Your task to perform on an android device: turn off data saver in the chrome app Image 0: 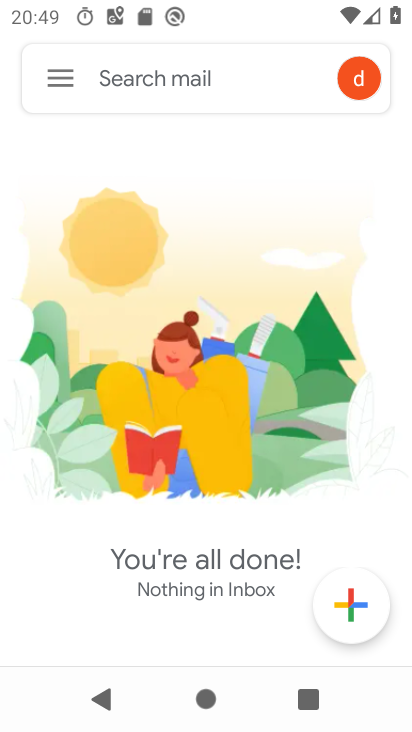
Step 0: press home button
Your task to perform on an android device: turn off data saver in the chrome app Image 1: 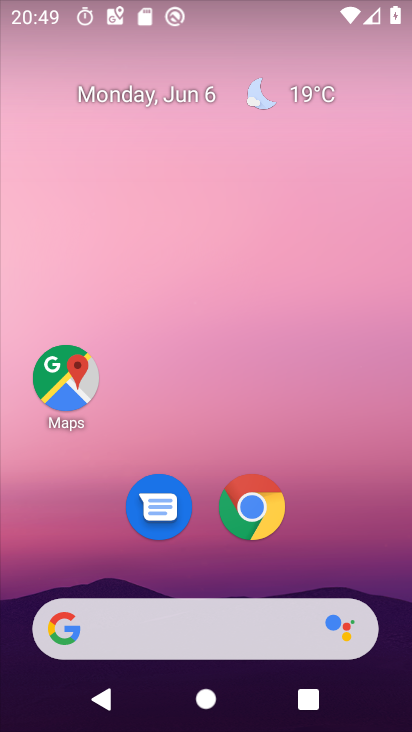
Step 1: click (251, 504)
Your task to perform on an android device: turn off data saver in the chrome app Image 2: 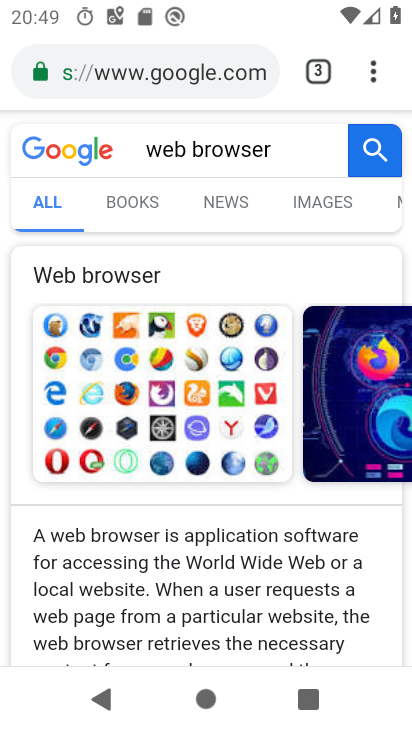
Step 2: click (370, 72)
Your task to perform on an android device: turn off data saver in the chrome app Image 3: 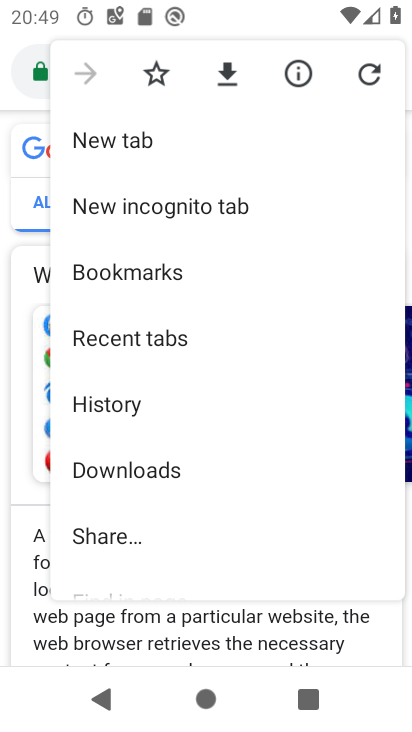
Step 3: drag from (140, 538) to (122, 192)
Your task to perform on an android device: turn off data saver in the chrome app Image 4: 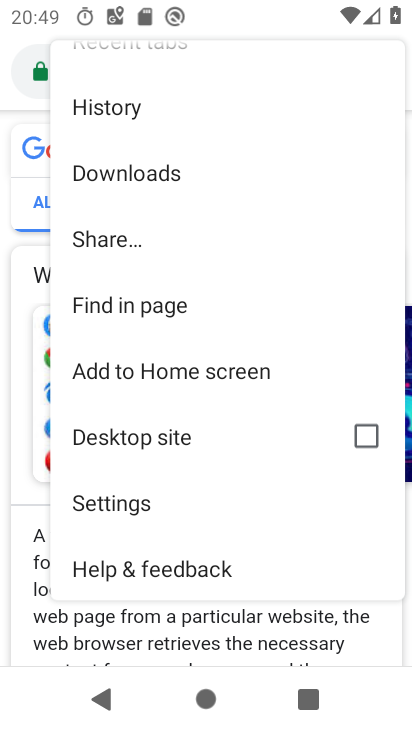
Step 4: click (125, 512)
Your task to perform on an android device: turn off data saver in the chrome app Image 5: 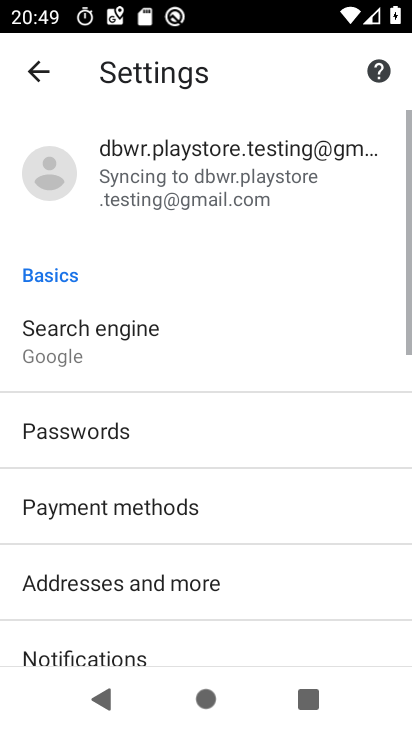
Step 5: drag from (189, 620) to (45, 90)
Your task to perform on an android device: turn off data saver in the chrome app Image 6: 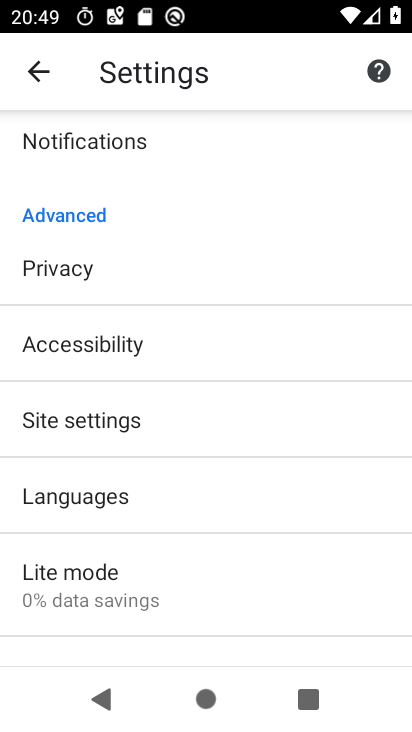
Step 6: click (154, 581)
Your task to perform on an android device: turn off data saver in the chrome app Image 7: 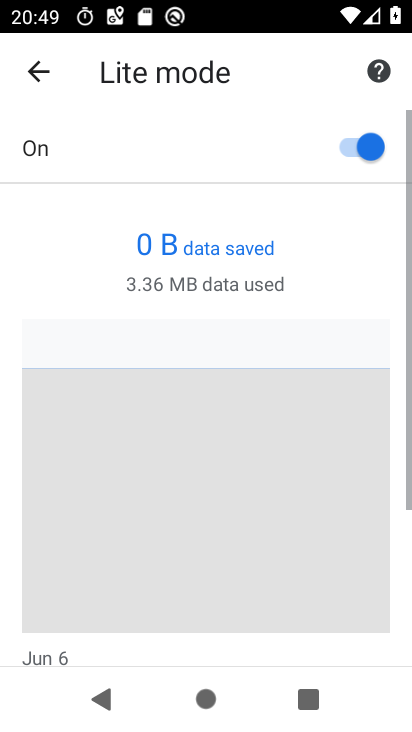
Step 7: click (251, 157)
Your task to perform on an android device: turn off data saver in the chrome app Image 8: 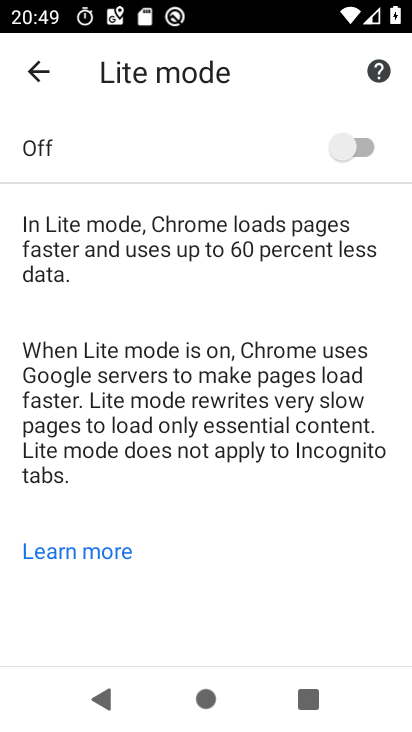
Step 8: task complete